Your task to perform on an android device: Show me the top rated dinnerware on Crate & Barrel Image 0: 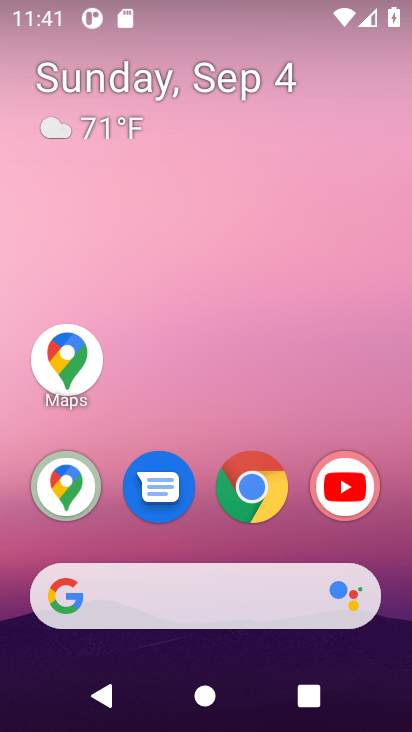
Step 0: click (326, 496)
Your task to perform on an android device: Show me the top rated dinnerware on Crate & Barrel Image 1: 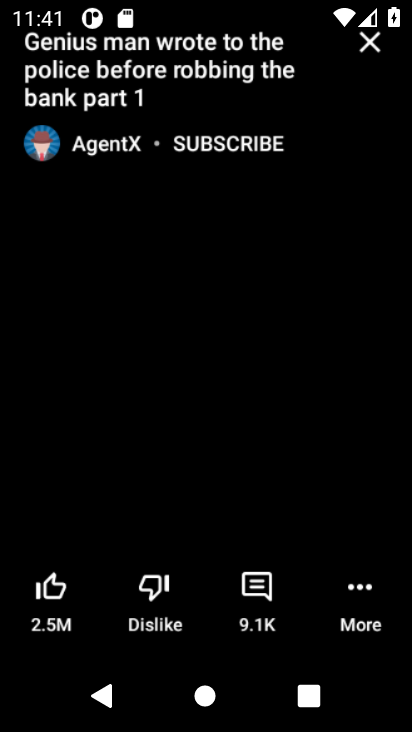
Step 1: task complete